Your task to perform on an android device: change the clock display to digital Image 0: 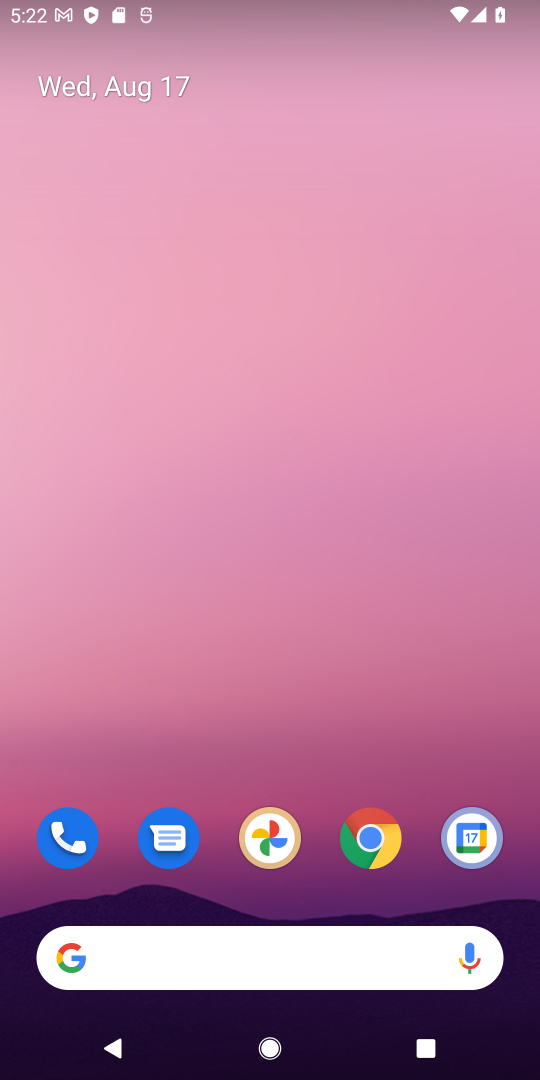
Step 0: drag from (270, 906) to (136, 282)
Your task to perform on an android device: change the clock display to digital Image 1: 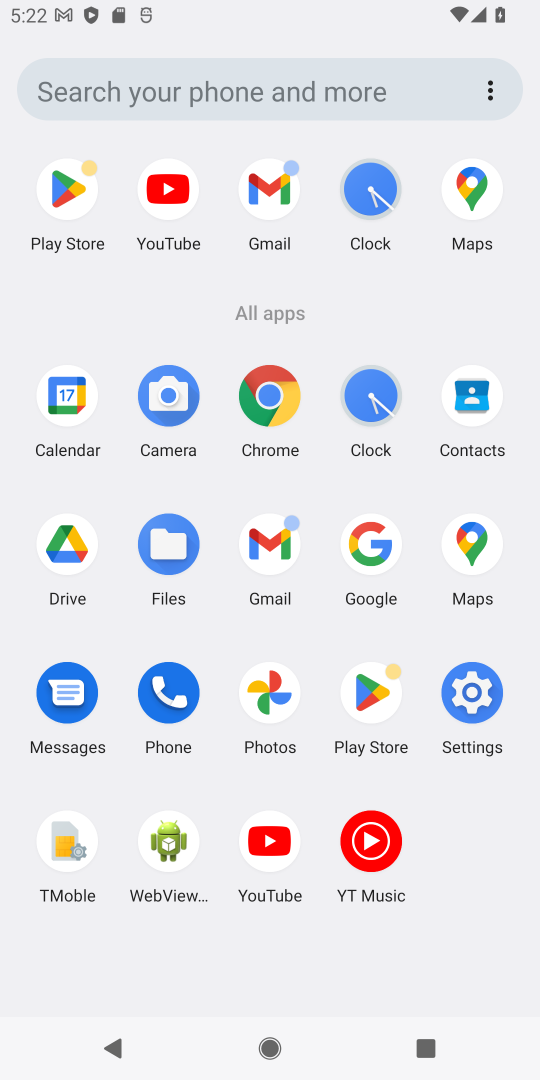
Step 1: click (358, 402)
Your task to perform on an android device: change the clock display to digital Image 2: 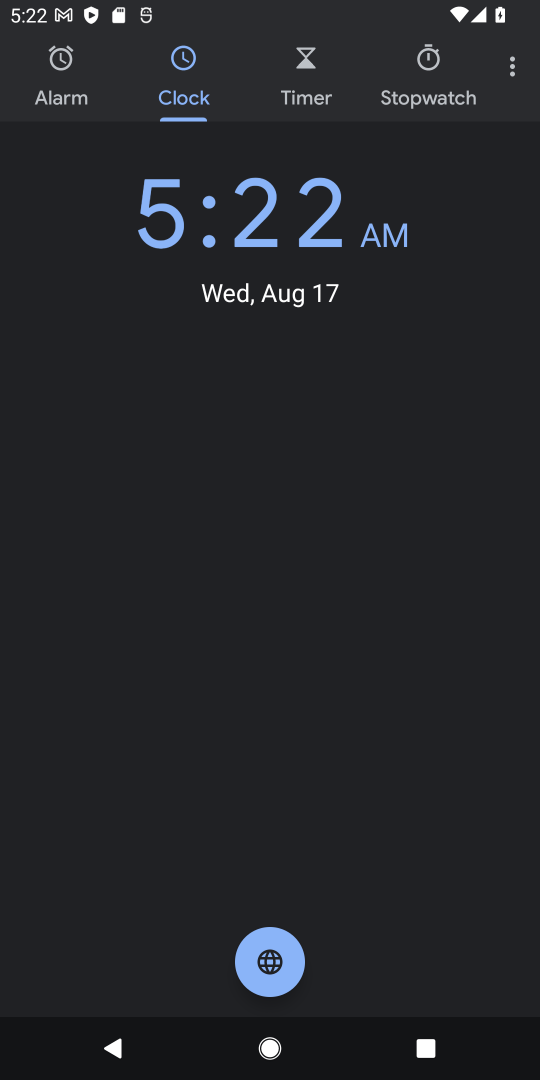
Step 2: click (511, 75)
Your task to perform on an android device: change the clock display to digital Image 3: 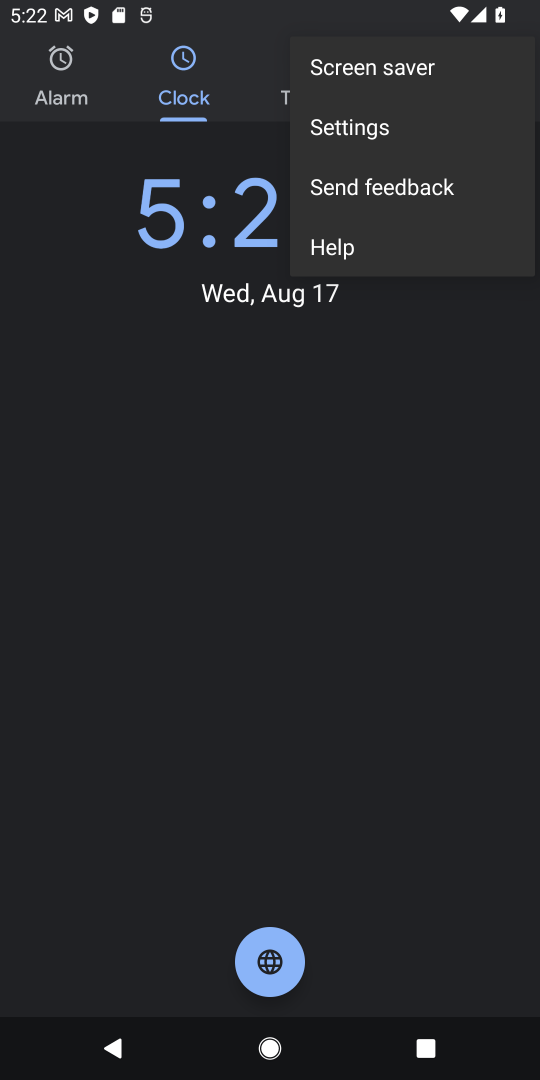
Step 3: click (313, 128)
Your task to perform on an android device: change the clock display to digital Image 4: 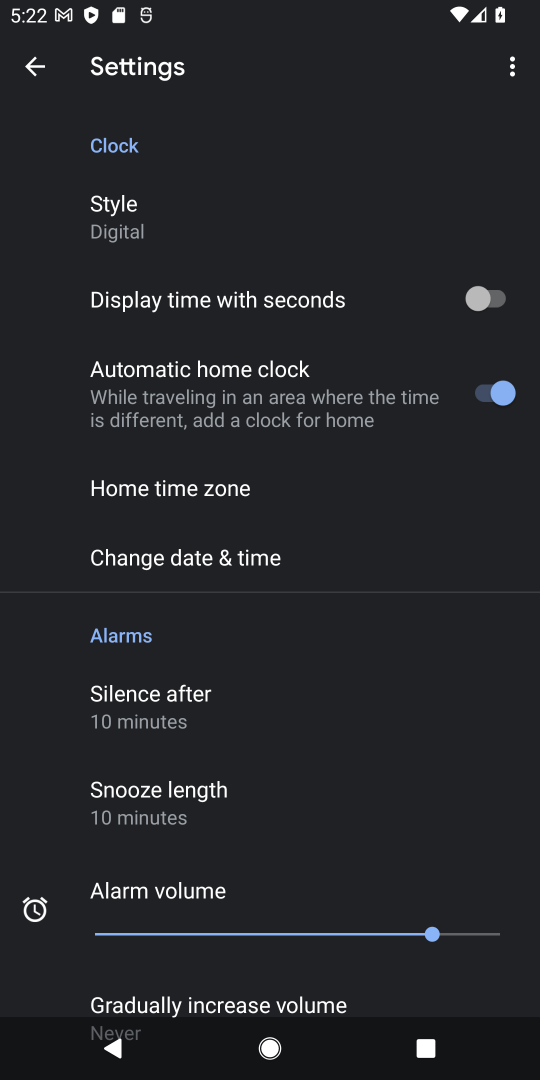
Step 4: click (148, 205)
Your task to perform on an android device: change the clock display to digital Image 5: 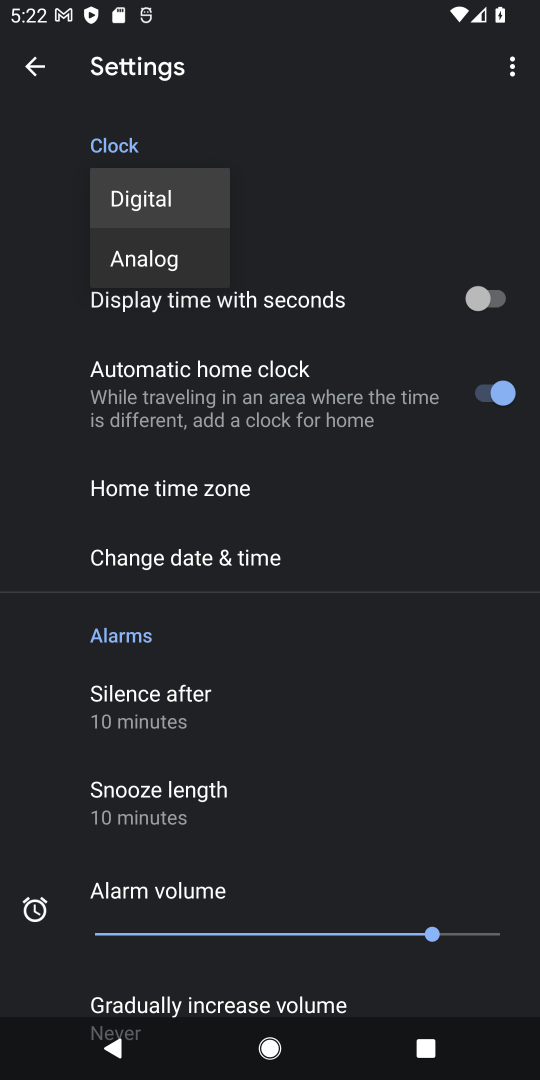
Step 5: click (149, 195)
Your task to perform on an android device: change the clock display to digital Image 6: 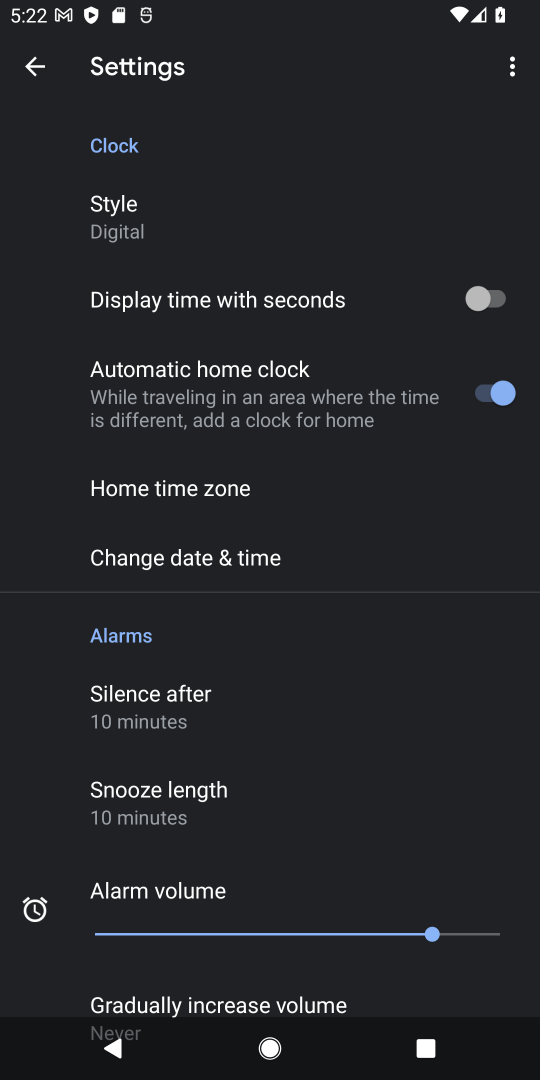
Step 6: task complete